Your task to perform on an android device: see sites visited before in the chrome app Image 0: 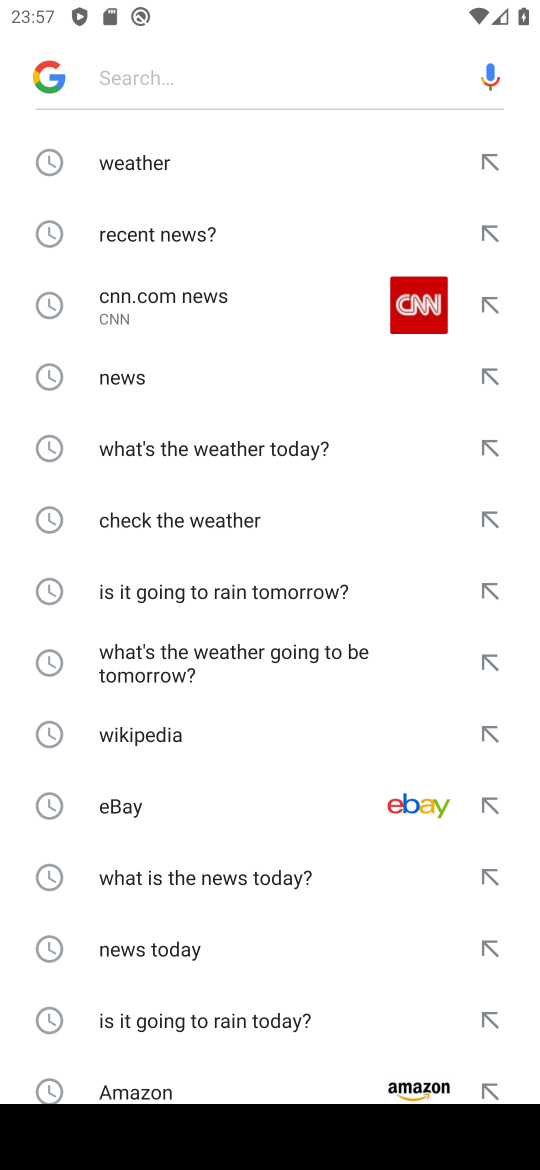
Step 0: press home button
Your task to perform on an android device: see sites visited before in the chrome app Image 1: 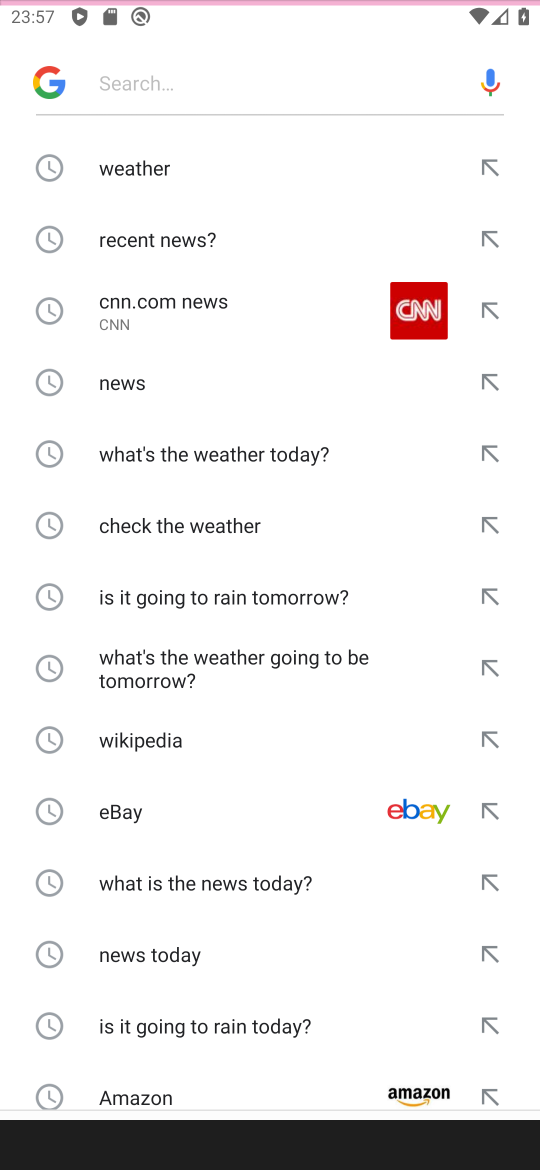
Step 1: press home button
Your task to perform on an android device: see sites visited before in the chrome app Image 2: 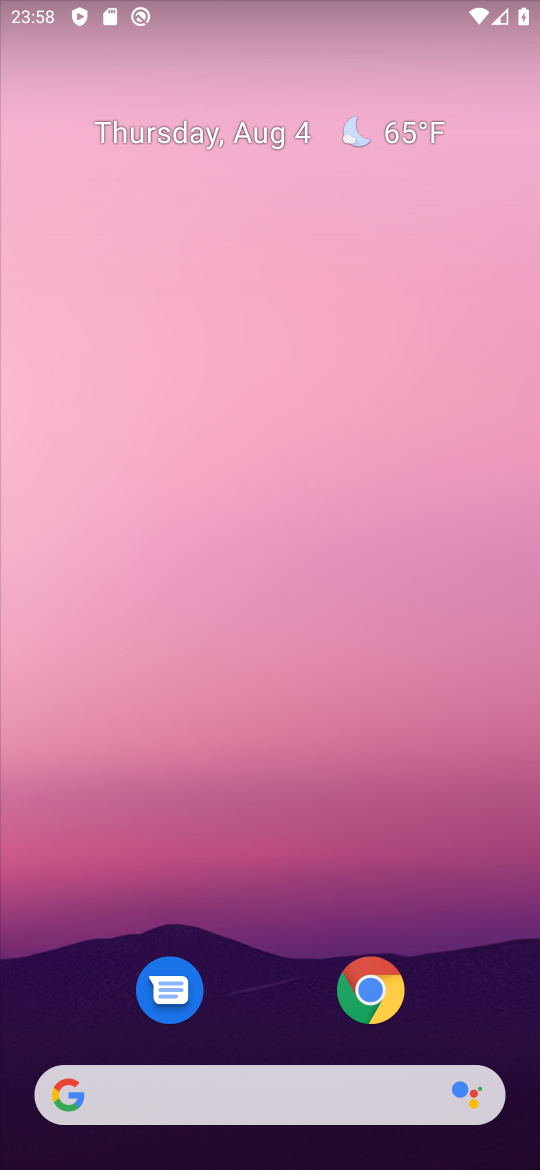
Step 2: click (378, 986)
Your task to perform on an android device: see sites visited before in the chrome app Image 3: 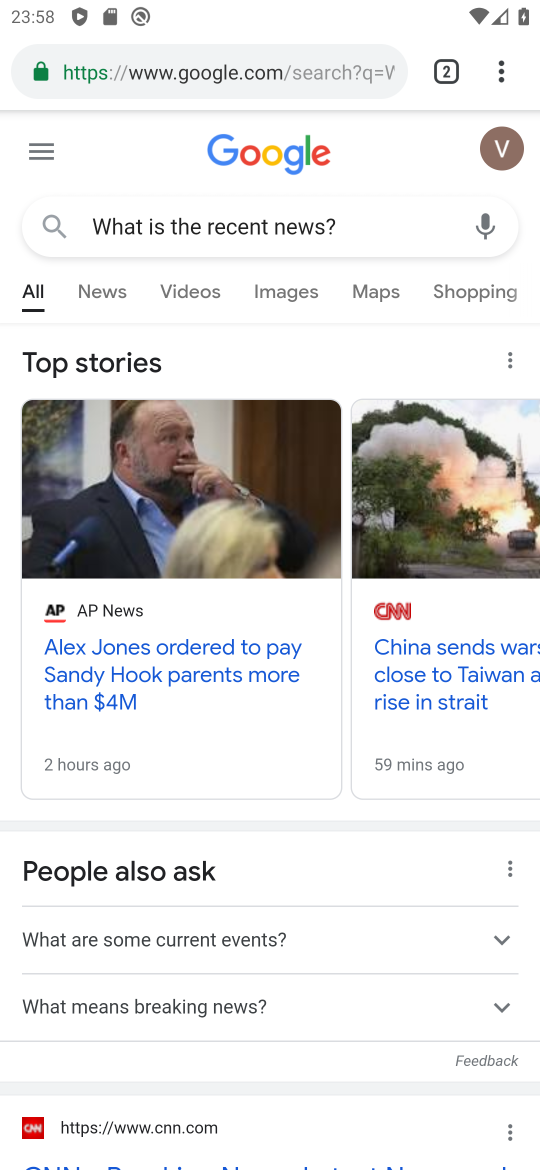
Step 3: click (507, 89)
Your task to perform on an android device: see sites visited before in the chrome app Image 4: 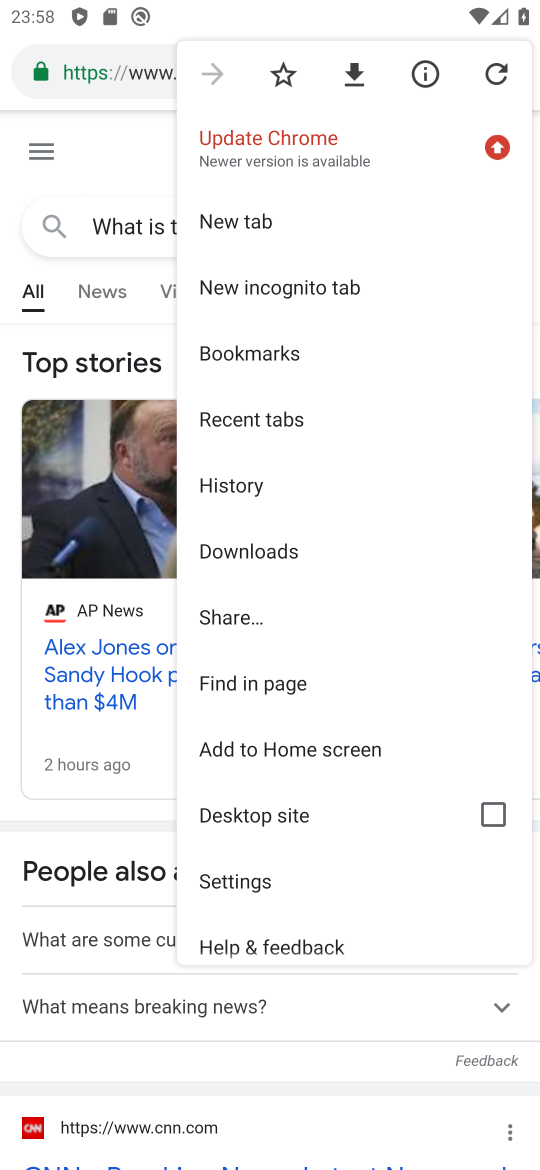
Step 4: click (282, 489)
Your task to perform on an android device: see sites visited before in the chrome app Image 5: 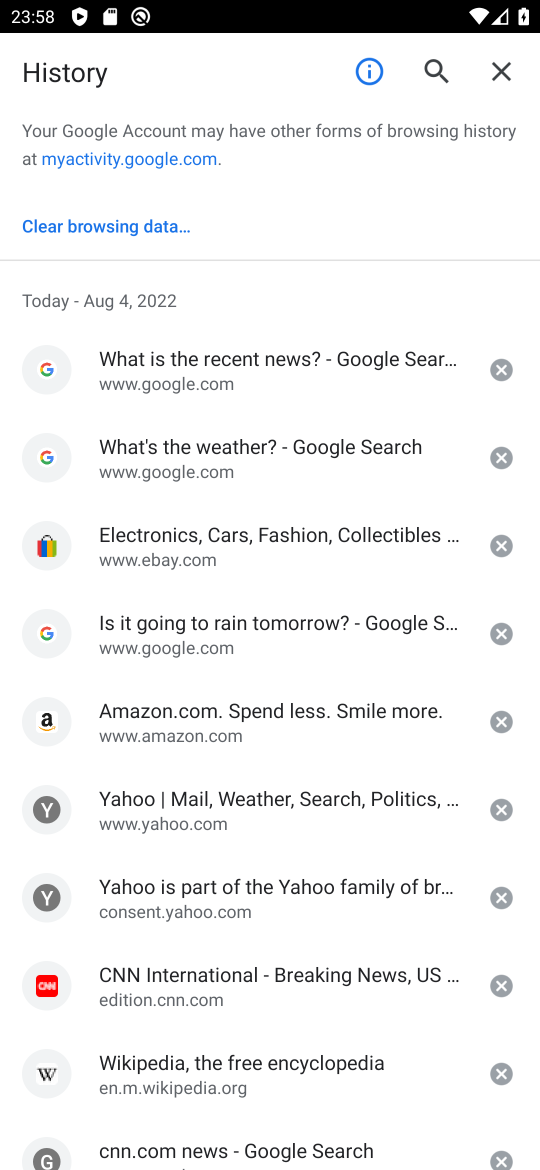
Step 5: task complete